Your task to perform on an android device: remove spam from my inbox in the gmail app Image 0: 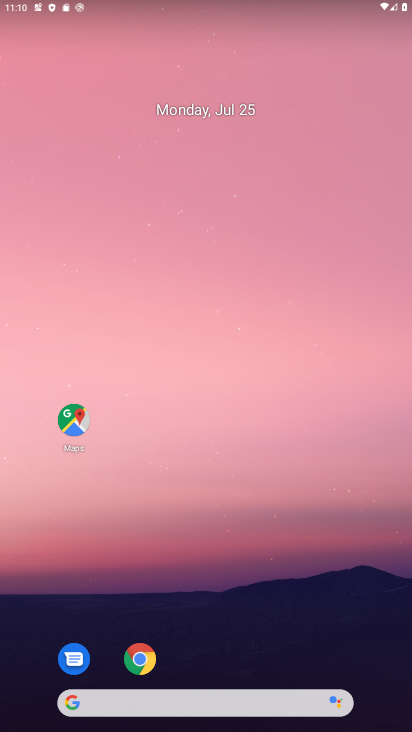
Step 0: drag from (231, 649) to (215, 92)
Your task to perform on an android device: remove spam from my inbox in the gmail app Image 1: 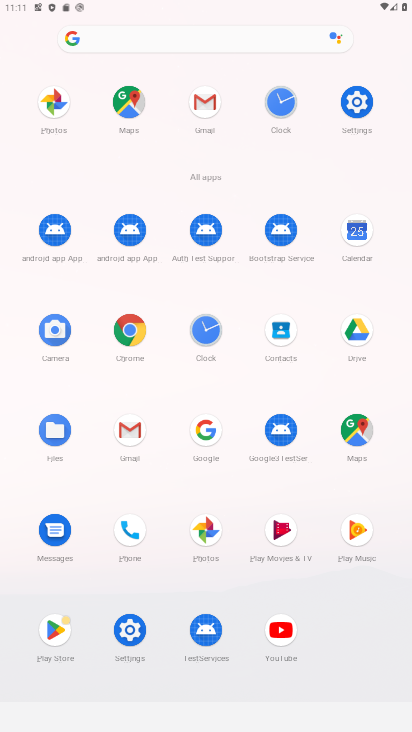
Step 1: click (203, 106)
Your task to perform on an android device: remove spam from my inbox in the gmail app Image 2: 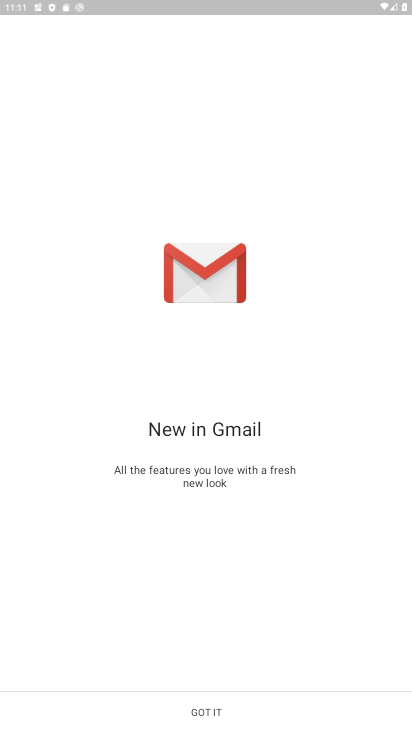
Step 2: click (286, 720)
Your task to perform on an android device: remove spam from my inbox in the gmail app Image 3: 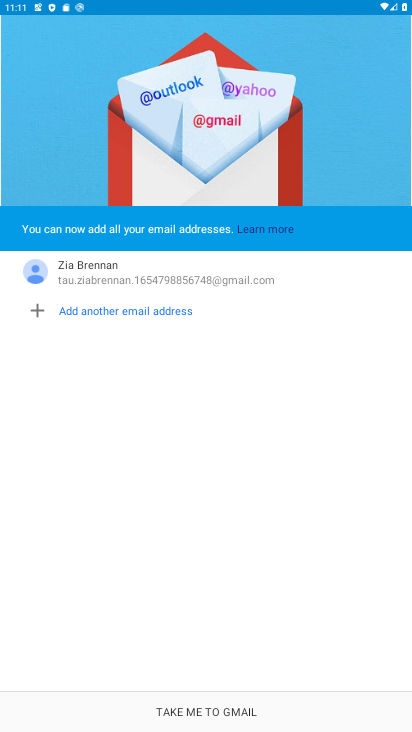
Step 3: click (255, 713)
Your task to perform on an android device: remove spam from my inbox in the gmail app Image 4: 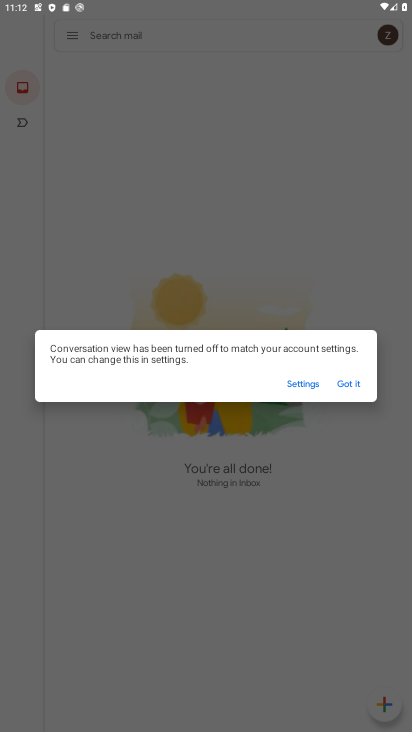
Step 4: click (341, 384)
Your task to perform on an android device: remove spam from my inbox in the gmail app Image 5: 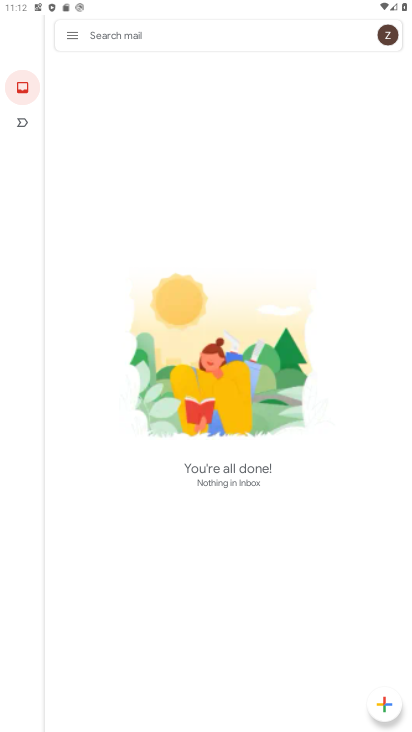
Step 5: click (67, 35)
Your task to perform on an android device: remove spam from my inbox in the gmail app Image 6: 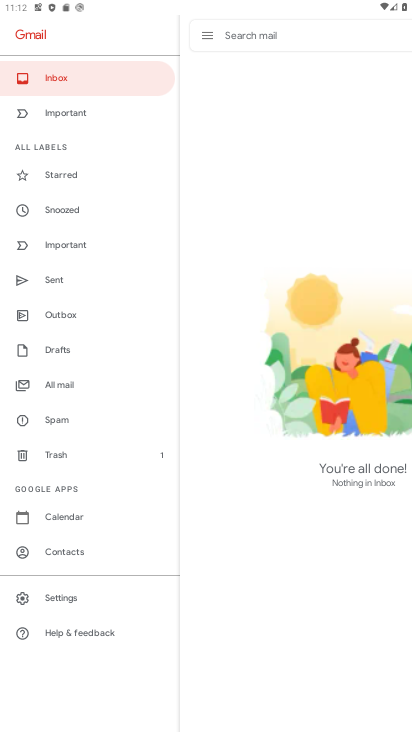
Step 6: click (79, 426)
Your task to perform on an android device: remove spam from my inbox in the gmail app Image 7: 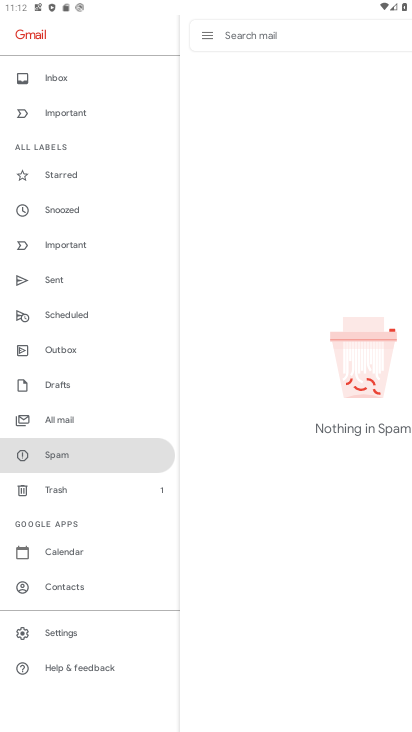
Step 7: task complete